Your task to perform on an android device: turn off priority inbox in the gmail app Image 0: 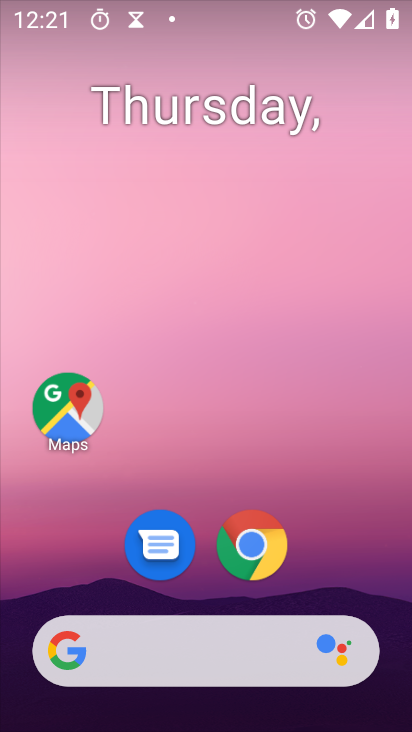
Step 0: press home button
Your task to perform on an android device: turn off priority inbox in the gmail app Image 1: 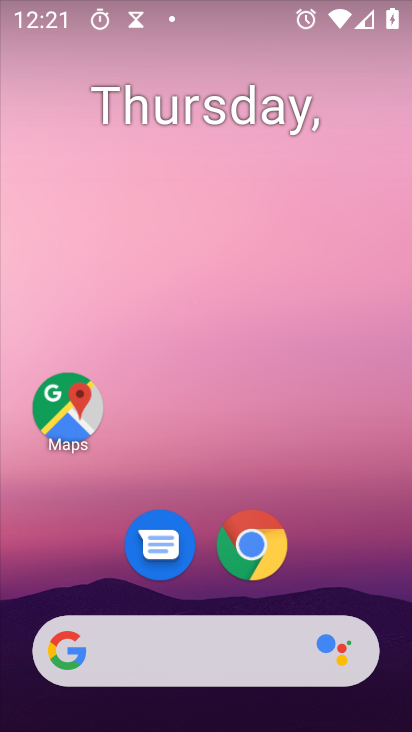
Step 1: drag from (136, 646) to (276, 125)
Your task to perform on an android device: turn off priority inbox in the gmail app Image 2: 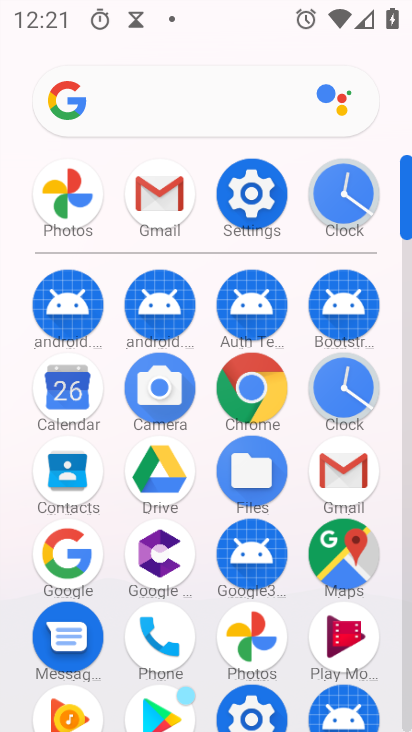
Step 2: click (157, 213)
Your task to perform on an android device: turn off priority inbox in the gmail app Image 3: 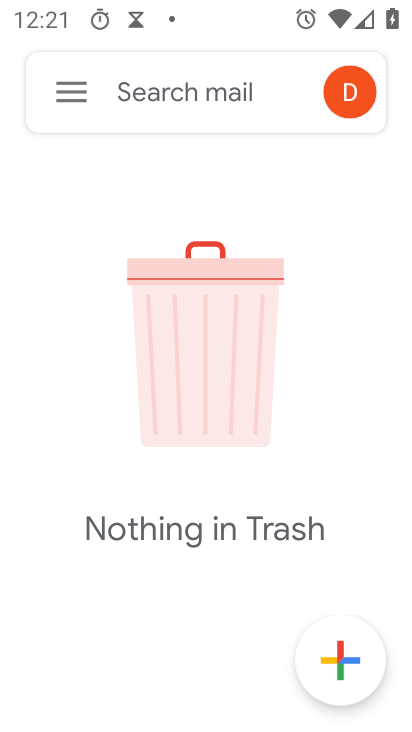
Step 3: click (72, 96)
Your task to perform on an android device: turn off priority inbox in the gmail app Image 4: 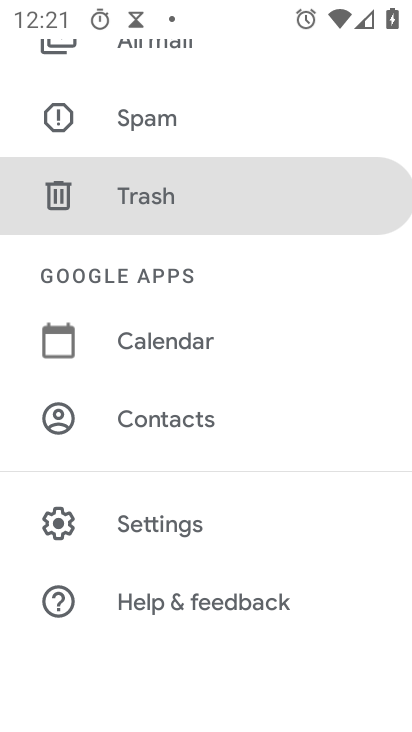
Step 4: click (178, 533)
Your task to perform on an android device: turn off priority inbox in the gmail app Image 5: 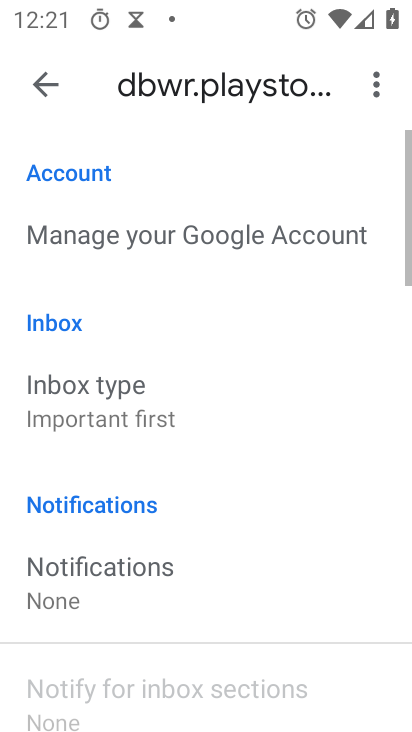
Step 5: drag from (234, 577) to (321, 178)
Your task to perform on an android device: turn off priority inbox in the gmail app Image 6: 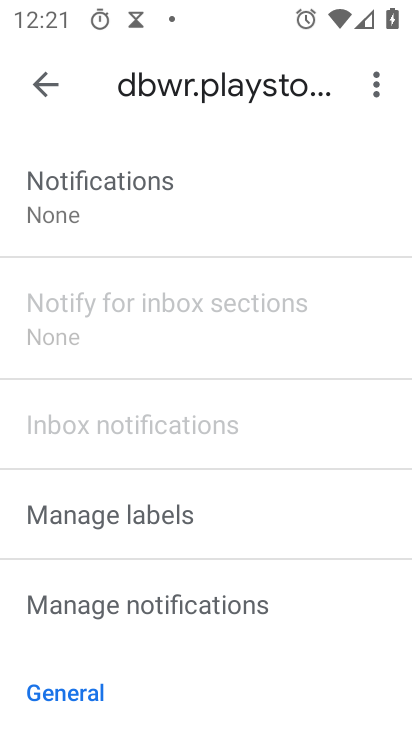
Step 6: drag from (298, 214) to (230, 729)
Your task to perform on an android device: turn off priority inbox in the gmail app Image 7: 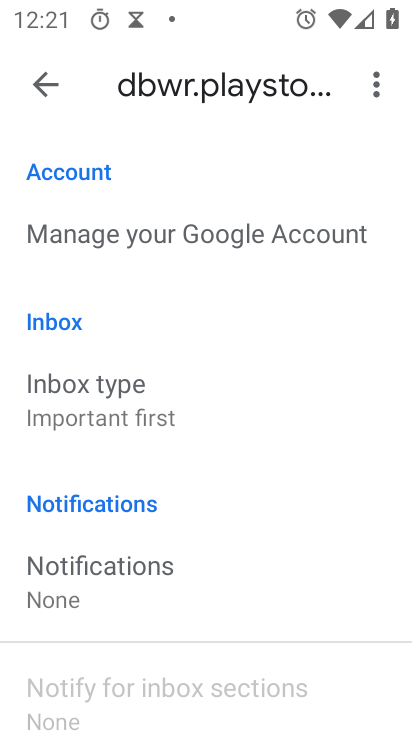
Step 7: click (123, 409)
Your task to perform on an android device: turn off priority inbox in the gmail app Image 8: 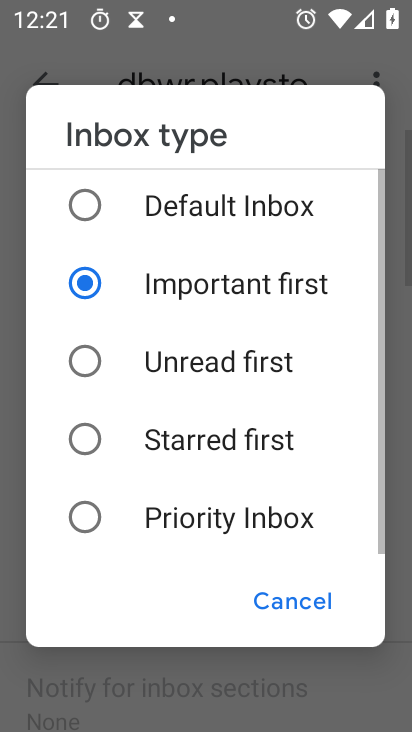
Step 8: click (90, 525)
Your task to perform on an android device: turn off priority inbox in the gmail app Image 9: 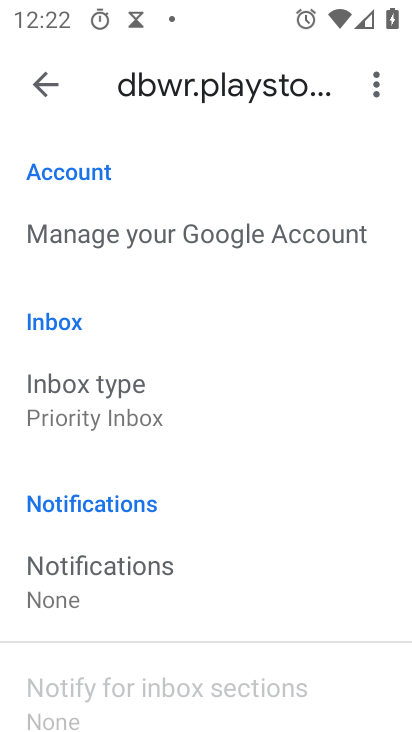
Step 9: task complete